Your task to perform on an android device: When is my next meeting? Image 0: 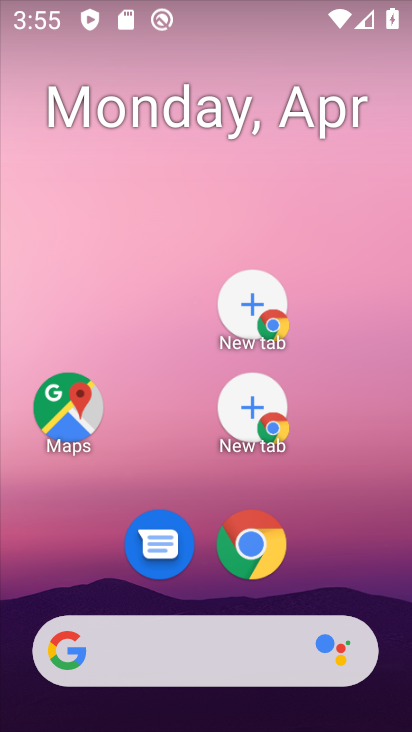
Step 0: drag from (360, 568) to (320, 124)
Your task to perform on an android device: When is my next meeting? Image 1: 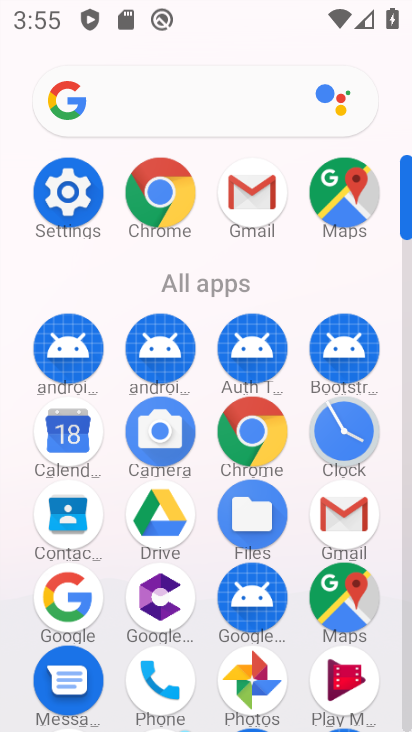
Step 1: click (72, 462)
Your task to perform on an android device: When is my next meeting? Image 2: 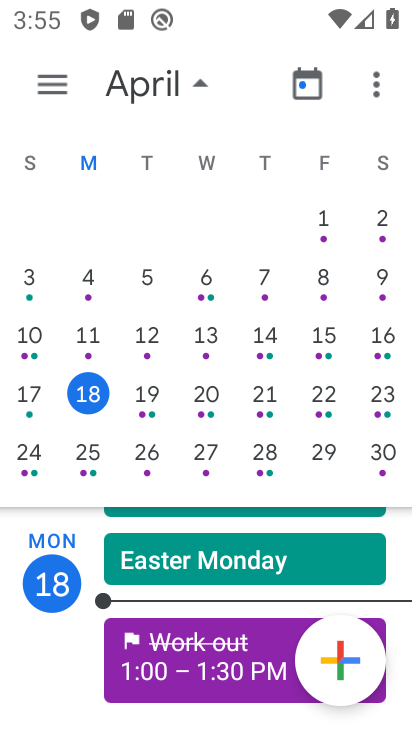
Step 2: task complete